Your task to perform on an android device: When is my next meeting? Image 0: 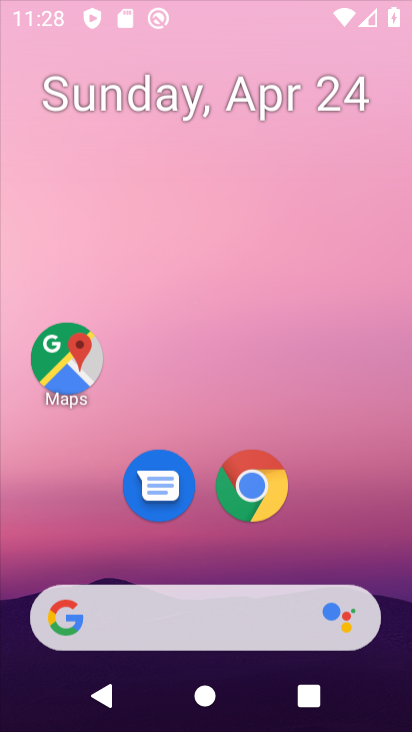
Step 0: drag from (371, 493) to (260, 120)
Your task to perform on an android device: When is my next meeting? Image 1: 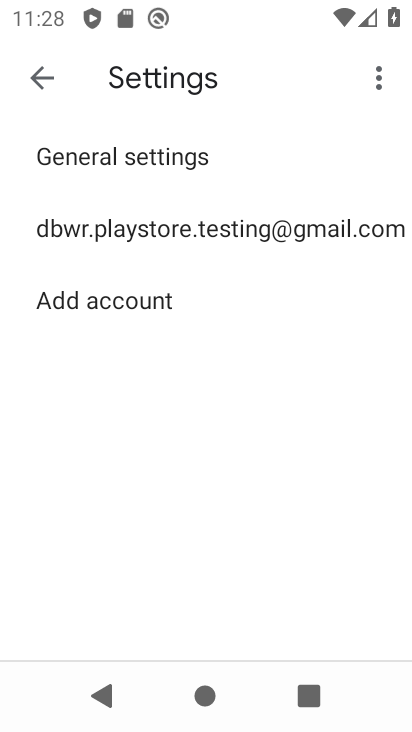
Step 1: press home button
Your task to perform on an android device: When is my next meeting? Image 2: 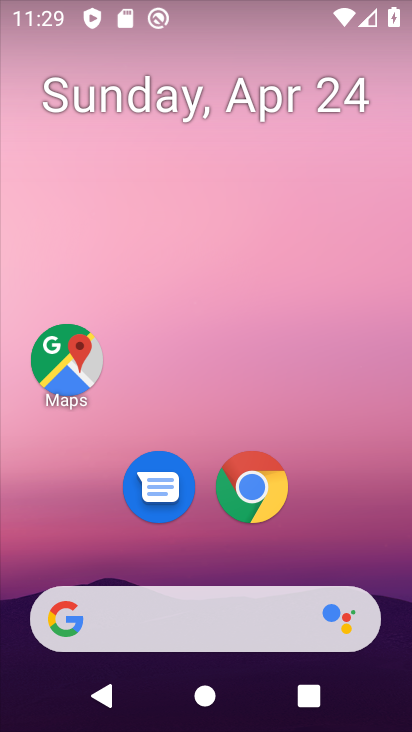
Step 2: drag from (380, 560) to (253, 72)
Your task to perform on an android device: When is my next meeting? Image 3: 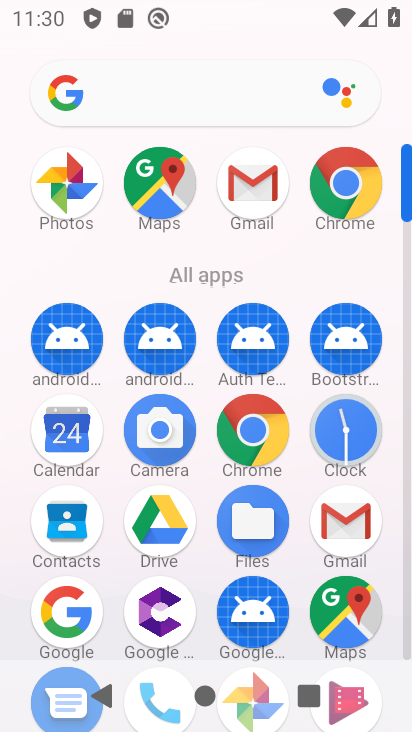
Step 3: click (74, 444)
Your task to perform on an android device: When is my next meeting? Image 4: 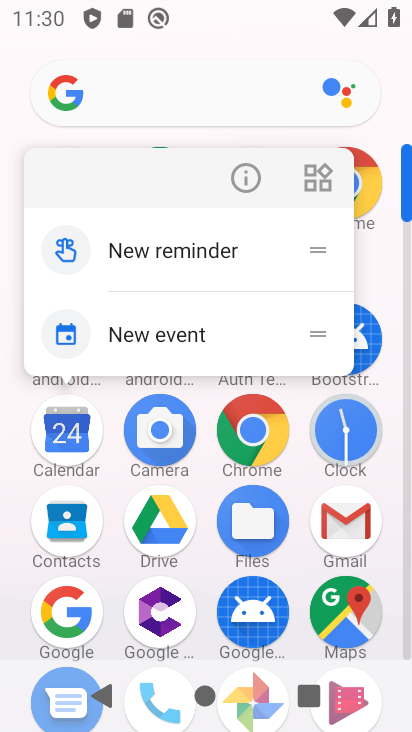
Step 4: click (74, 444)
Your task to perform on an android device: When is my next meeting? Image 5: 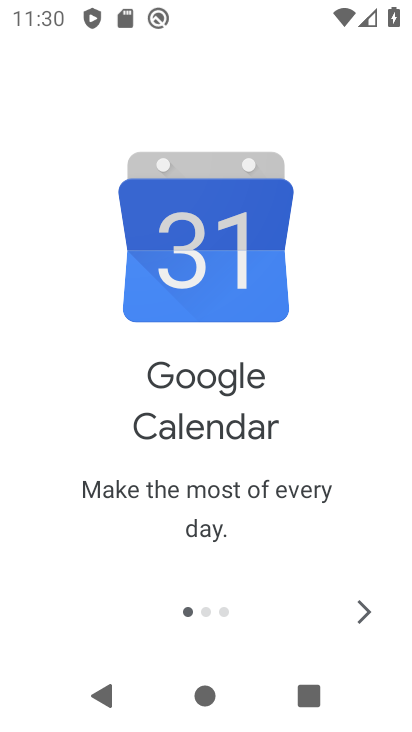
Step 5: click (358, 609)
Your task to perform on an android device: When is my next meeting? Image 6: 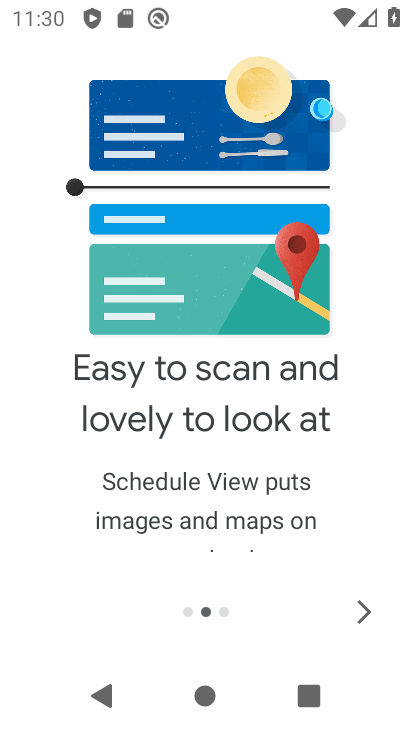
Step 6: click (358, 609)
Your task to perform on an android device: When is my next meeting? Image 7: 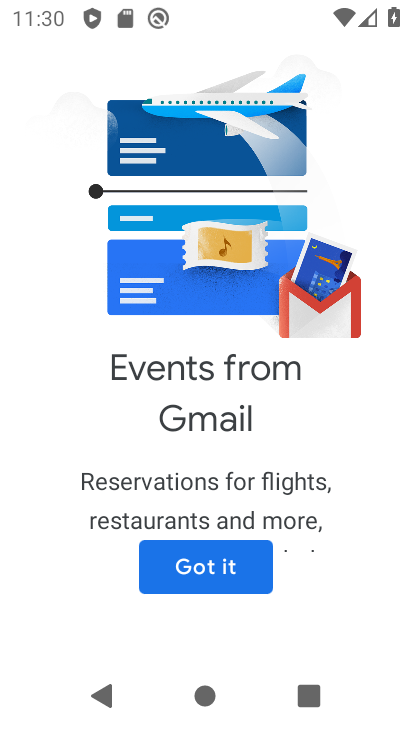
Step 7: click (240, 566)
Your task to perform on an android device: When is my next meeting? Image 8: 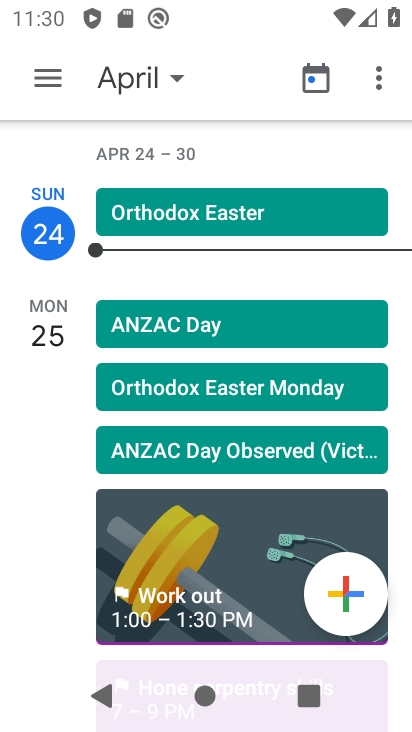
Step 8: click (34, 66)
Your task to perform on an android device: When is my next meeting? Image 9: 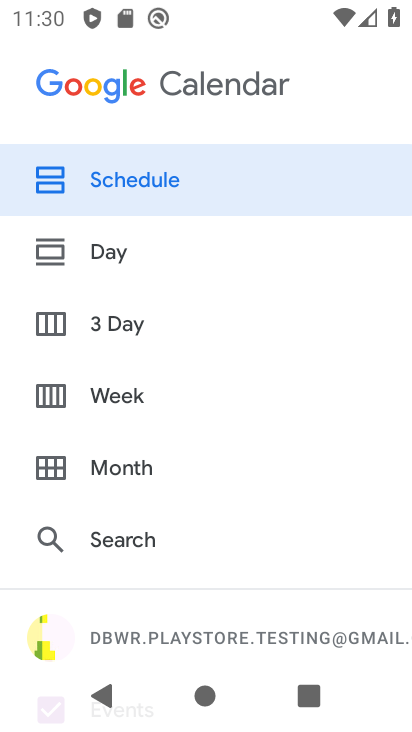
Step 9: click (167, 168)
Your task to perform on an android device: When is my next meeting? Image 10: 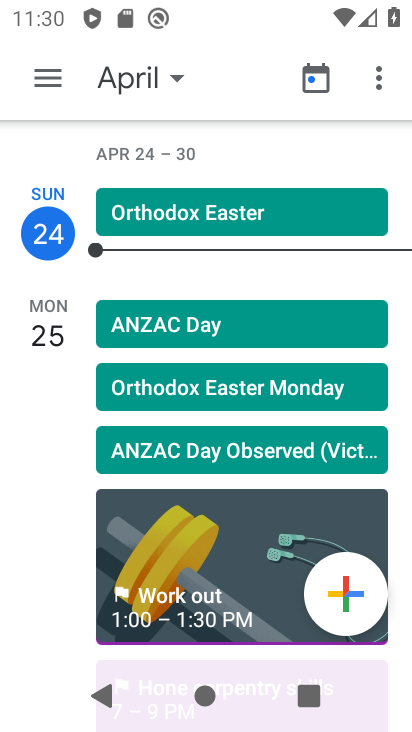
Step 10: click (64, 75)
Your task to perform on an android device: When is my next meeting? Image 11: 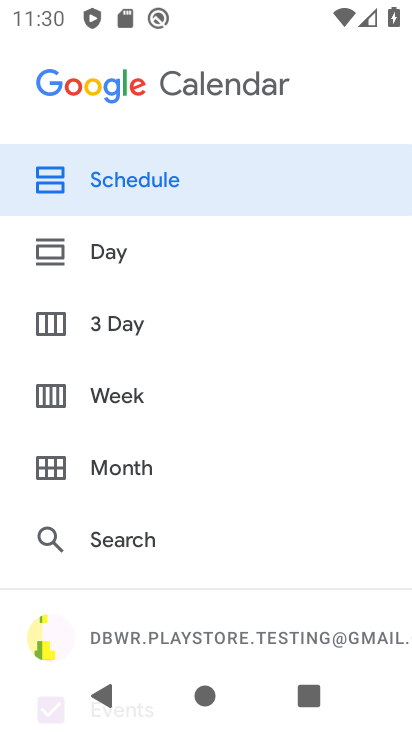
Step 11: click (179, 195)
Your task to perform on an android device: When is my next meeting? Image 12: 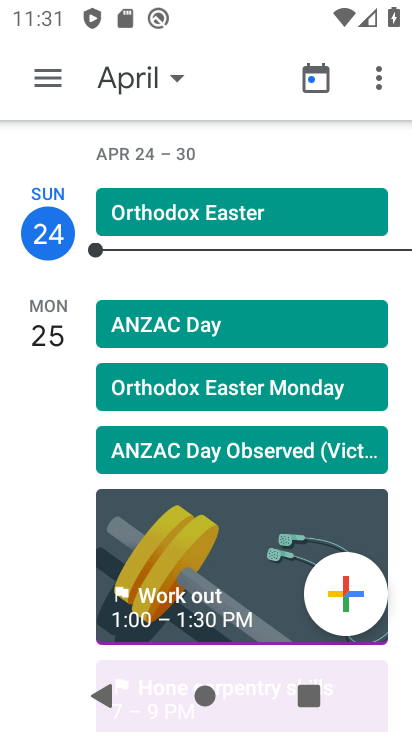
Step 12: task complete